Your task to perform on an android device: turn off wifi Image 0: 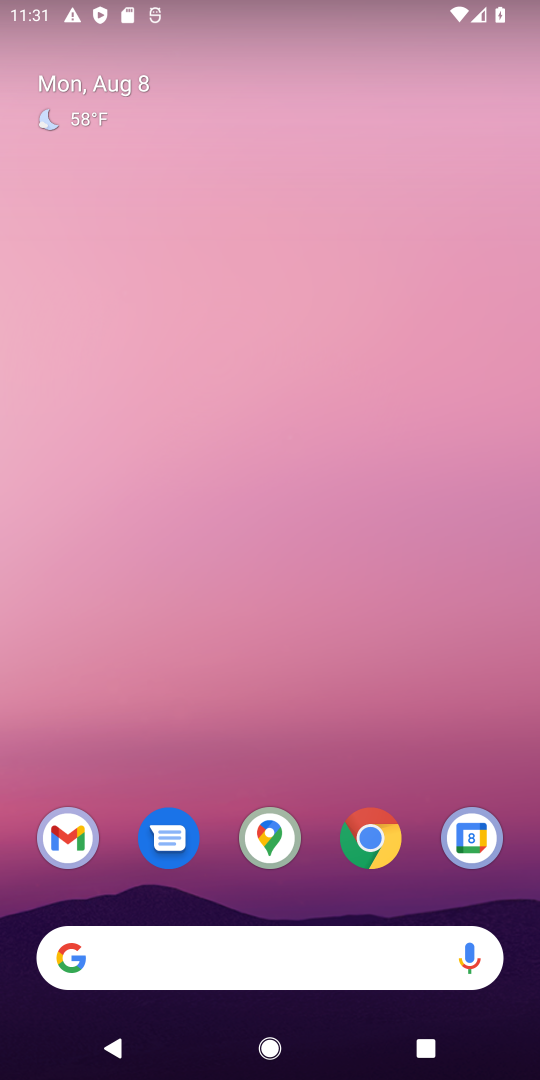
Step 0: press home button
Your task to perform on an android device: turn off wifi Image 1: 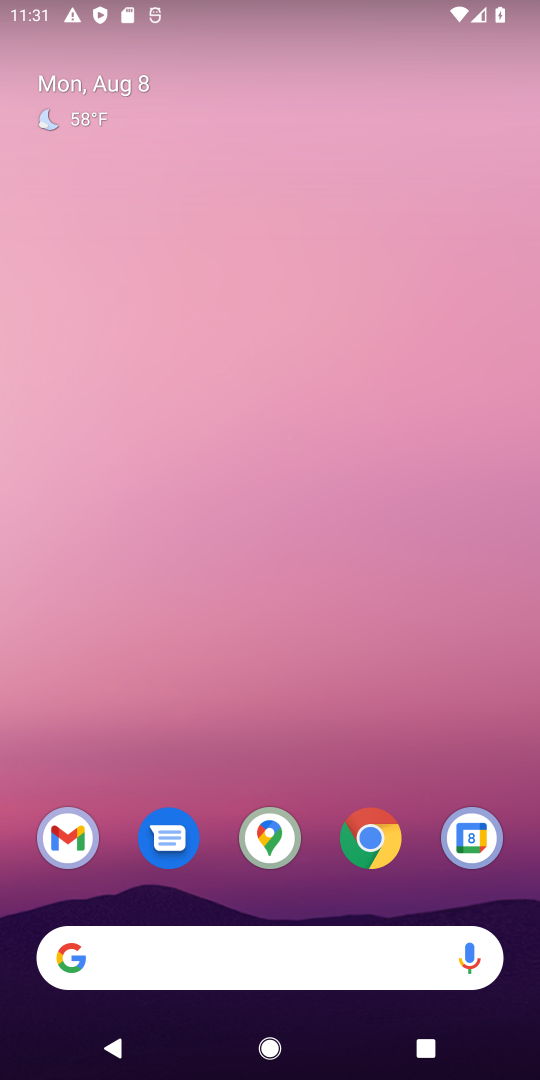
Step 1: drag from (336, 770) to (380, 43)
Your task to perform on an android device: turn off wifi Image 2: 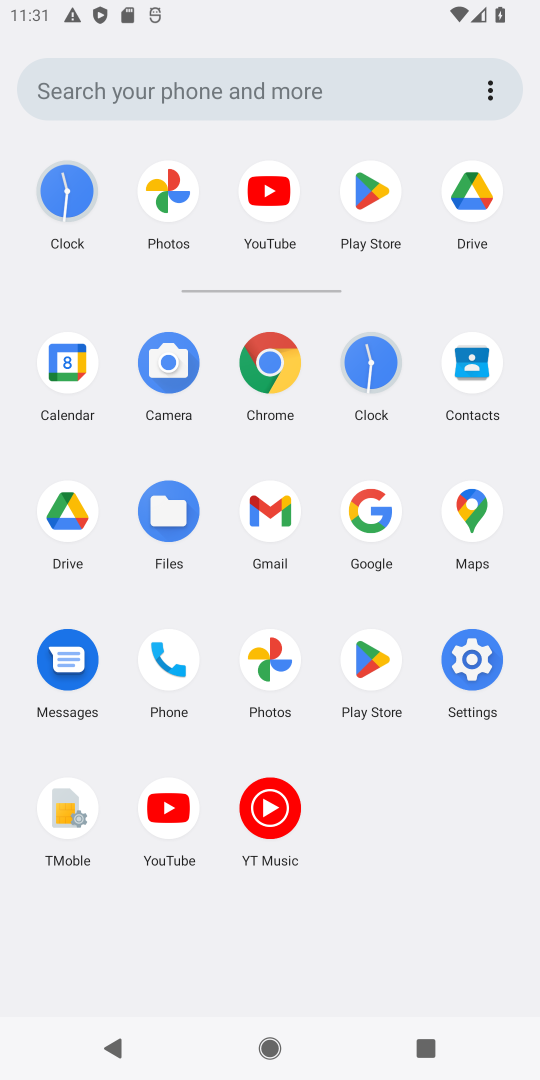
Step 2: click (469, 660)
Your task to perform on an android device: turn off wifi Image 3: 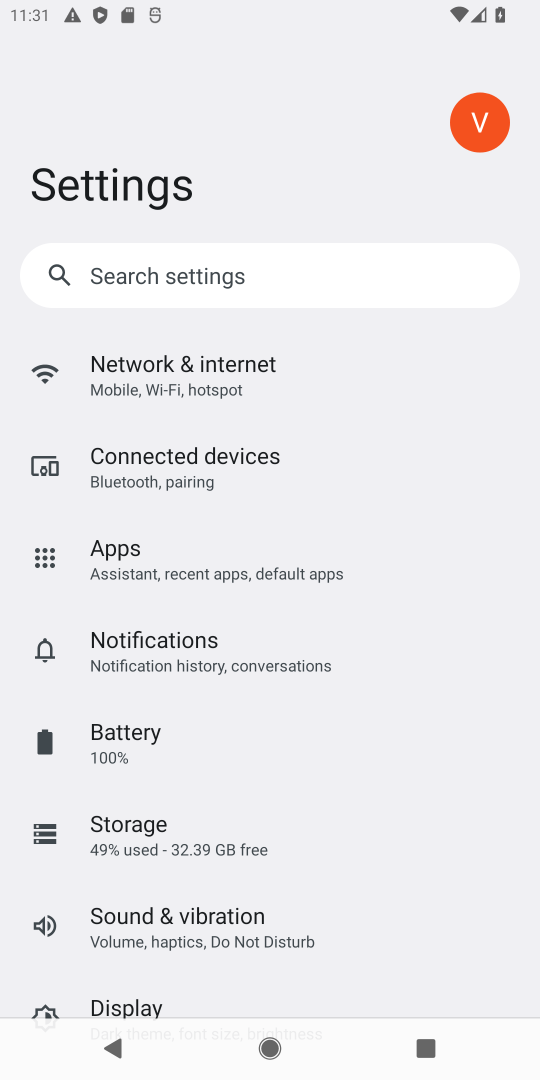
Step 3: click (143, 357)
Your task to perform on an android device: turn off wifi Image 4: 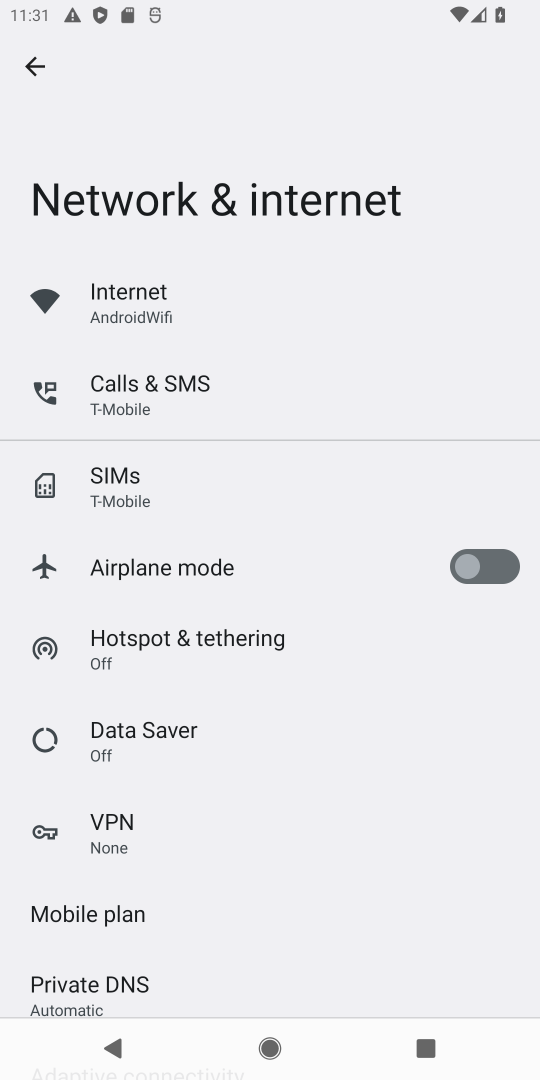
Step 4: click (83, 303)
Your task to perform on an android device: turn off wifi Image 5: 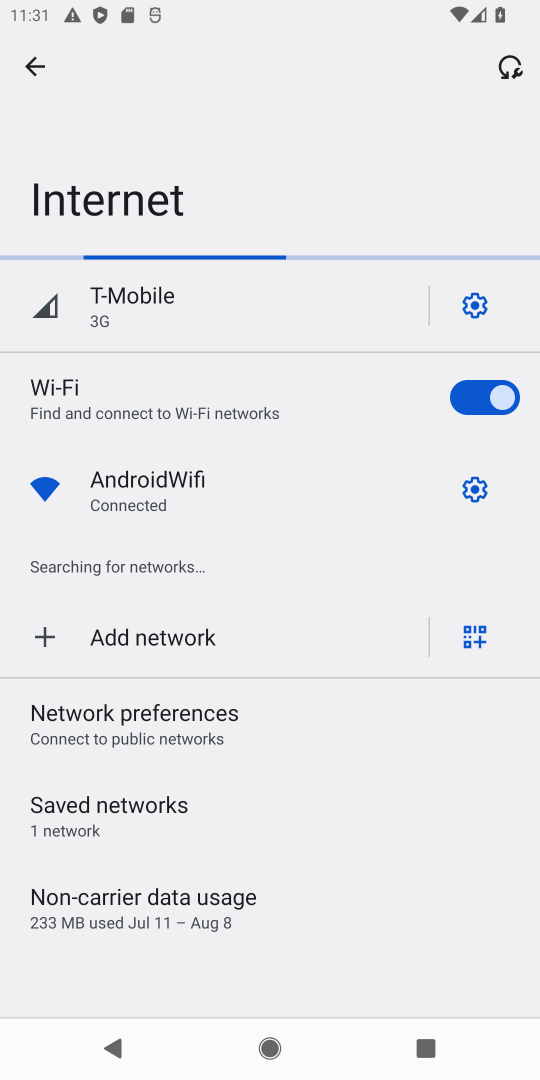
Step 5: click (156, 506)
Your task to perform on an android device: turn off wifi Image 6: 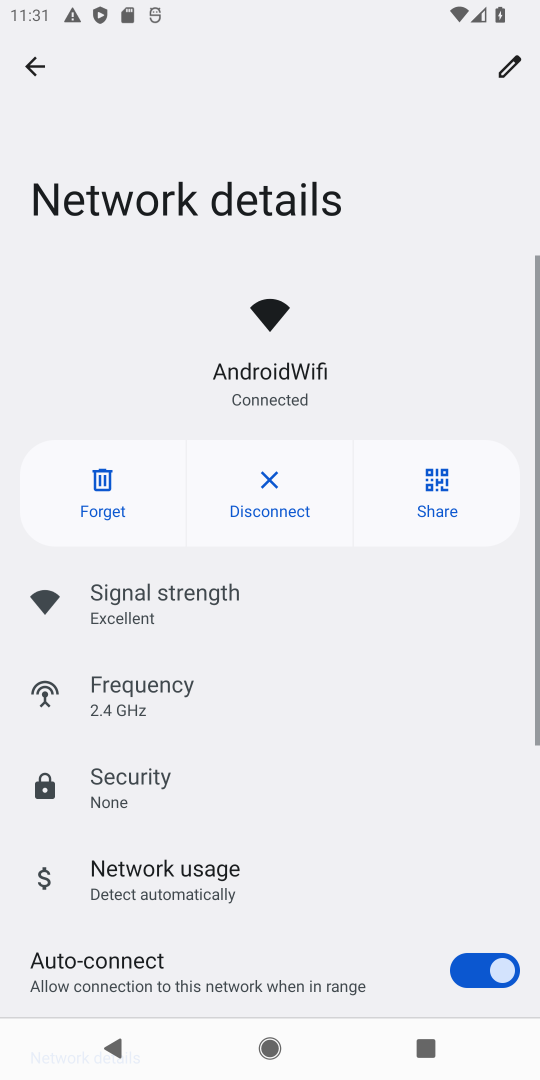
Step 6: task complete